Your task to perform on an android device: What's the weather? Image 0: 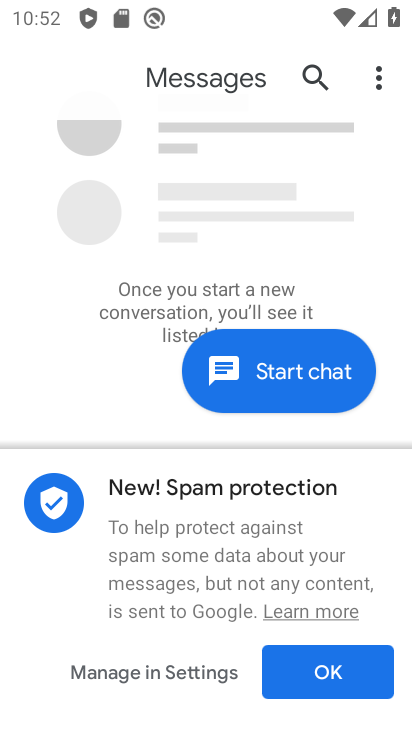
Step 0: press home button
Your task to perform on an android device: What's the weather? Image 1: 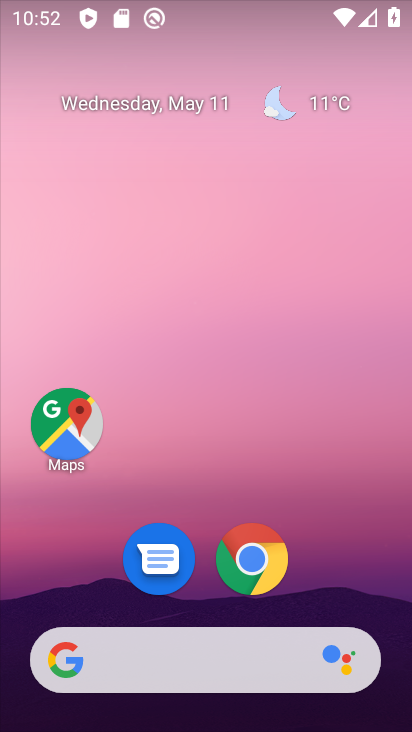
Step 1: click (130, 666)
Your task to perform on an android device: What's the weather? Image 2: 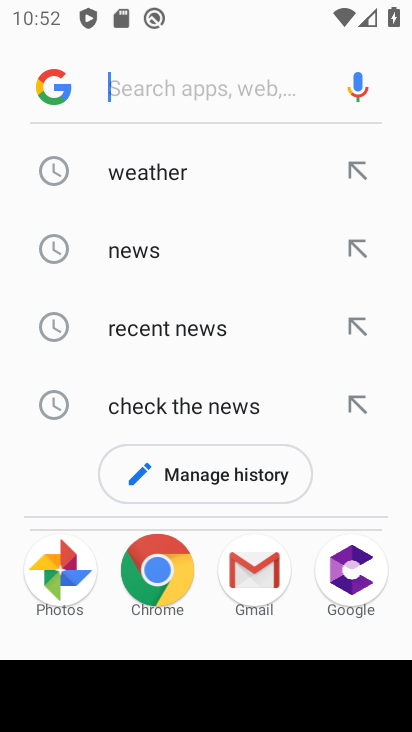
Step 2: click (190, 176)
Your task to perform on an android device: What's the weather? Image 3: 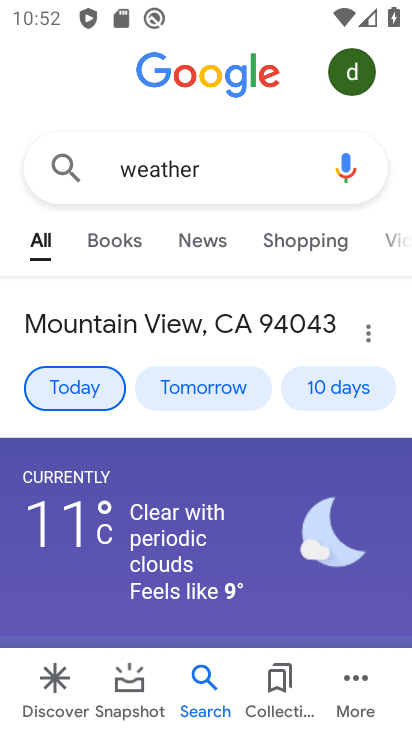
Step 3: task complete